Your task to perform on an android device: Check the news Image 0: 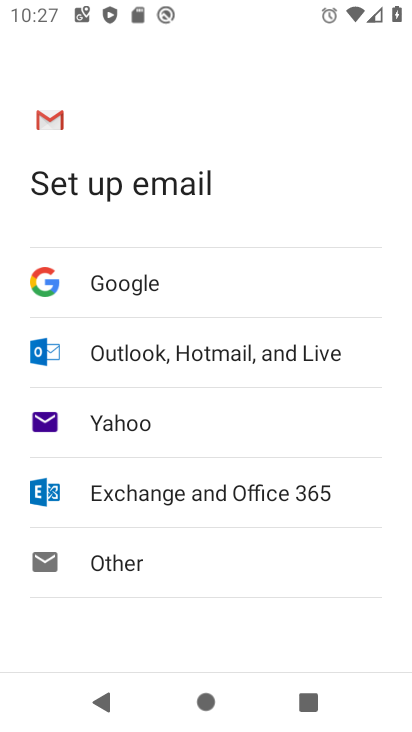
Step 0: press home button
Your task to perform on an android device: Check the news Image 1: 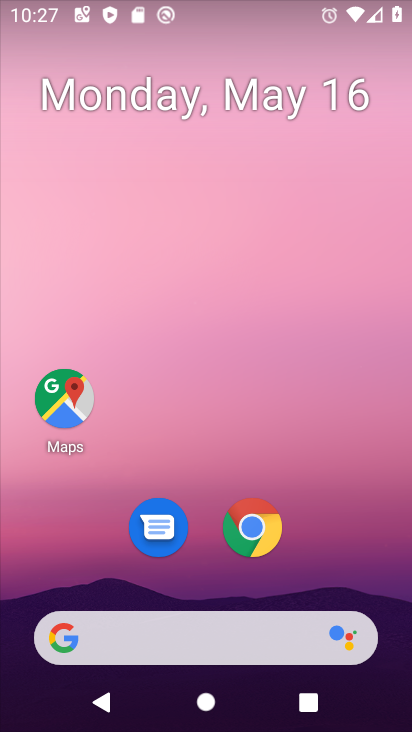
Step 1: click (131, 637)
Your task to perform on an android device: Check the news Image 2: 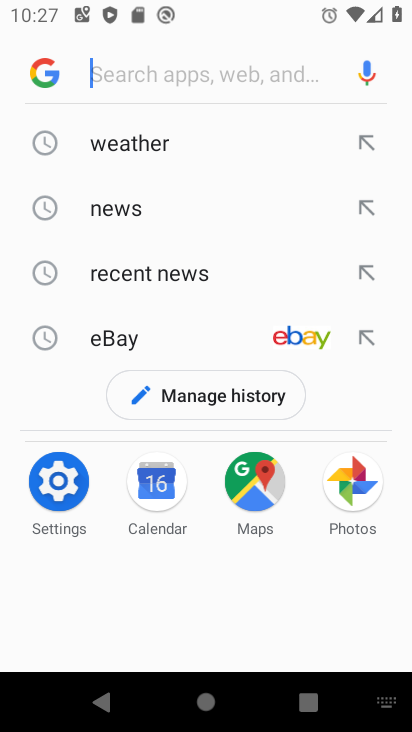
Step 2: click (111, 216)
Your task to perform on an android device: Check the news Image 3: 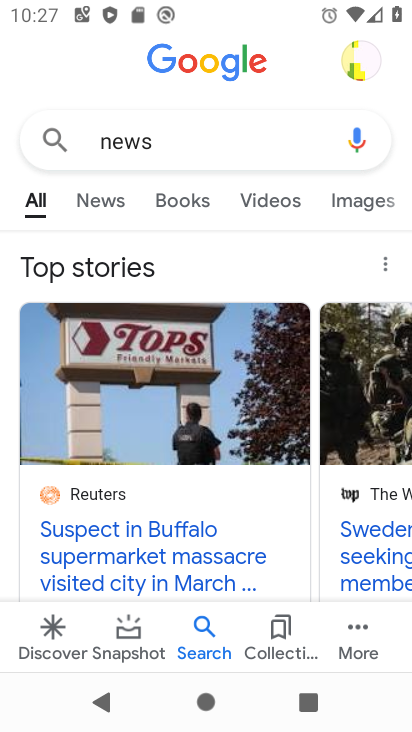
Step 3: click (106, 204)
Your task to perform on an android device: Check the news Image 4: 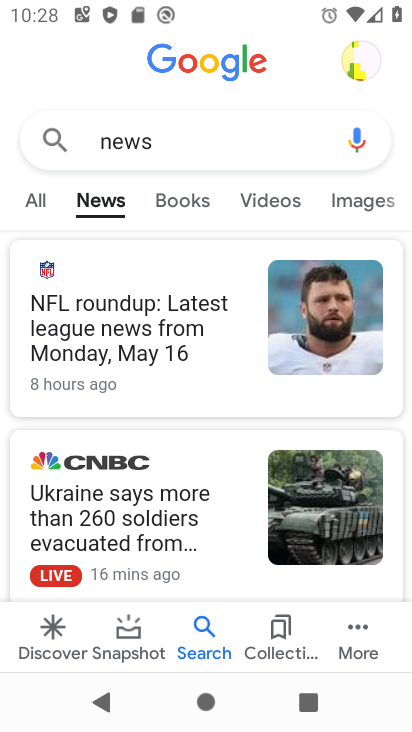
Step 4: click (151, 356)
Your task to perform on an android device: Check the news Image 5: 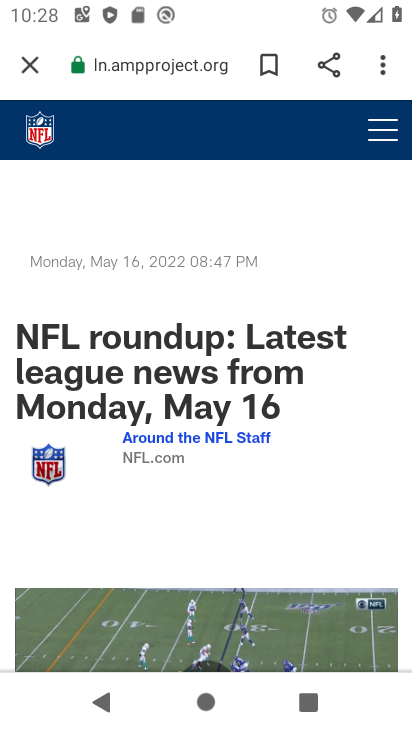
Step 5: task complete